Your task to perform on an android device: What's the weather going to be tomorrow? Image 0: 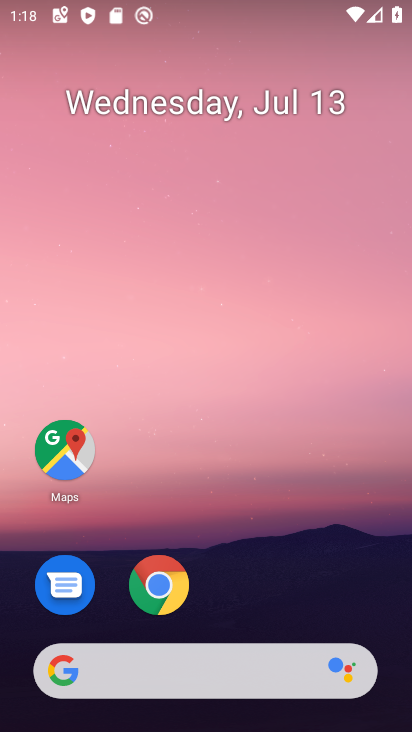
Step 0: click (194, 671)
Your task to perform on an android device: What's the weather going to be tomorrow? Image 1: 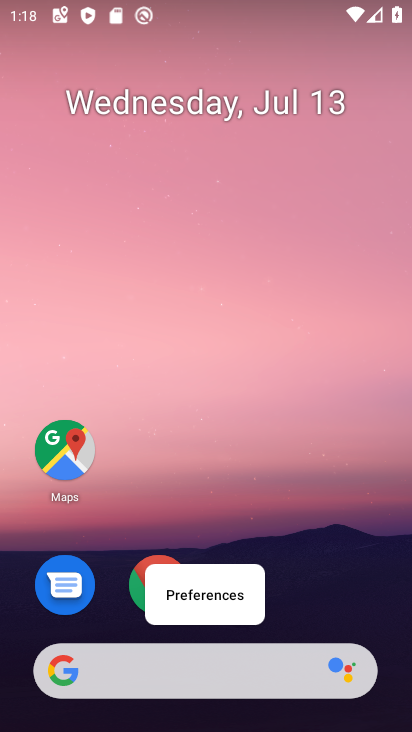
Step 1: click (133, 670)
Your task to perform on an android device: What's the weather going to be tomorrow? Image 2: 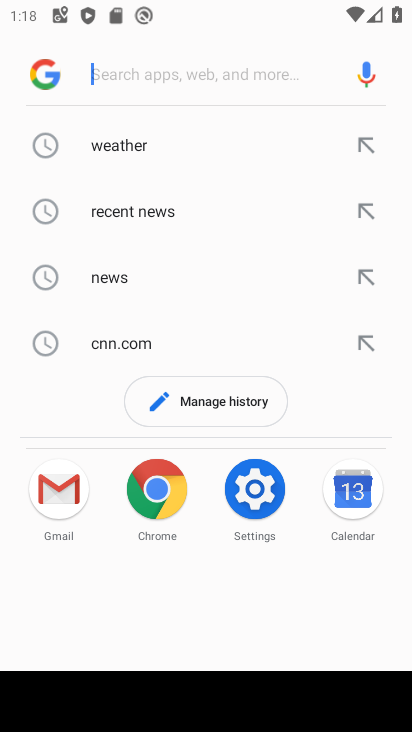
Step 2: click (132, 147)
Your task to perform on an android device: What's the weather going to be tomorrow? Image 3: 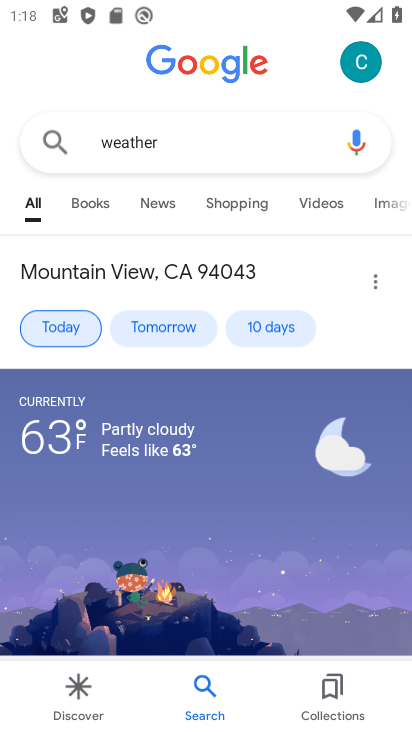
Step 3: click (166, 330)
Your task to perform on an android device: What's the weather going to be tomorrow? Image 4: 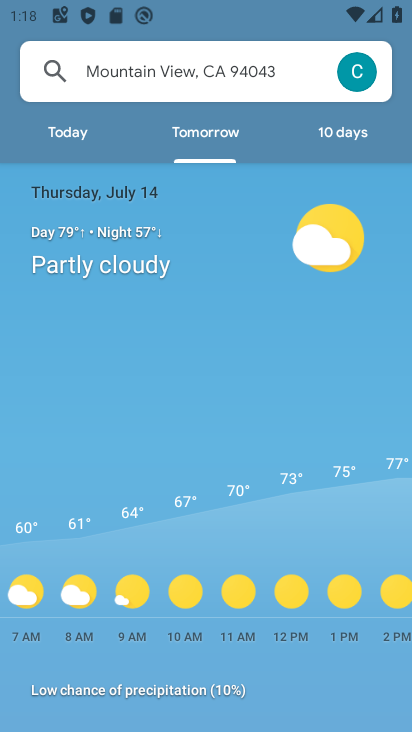
Step 4: task complete